Your task to perform on an android device: toggle data saver in the chrome app Image 0: 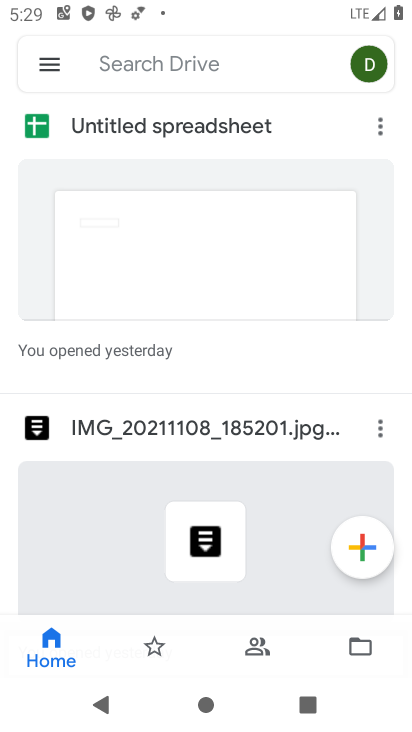
Step 0: press back button
Your task to perform on an android device: toggle data saver in the chrome app Image 1: 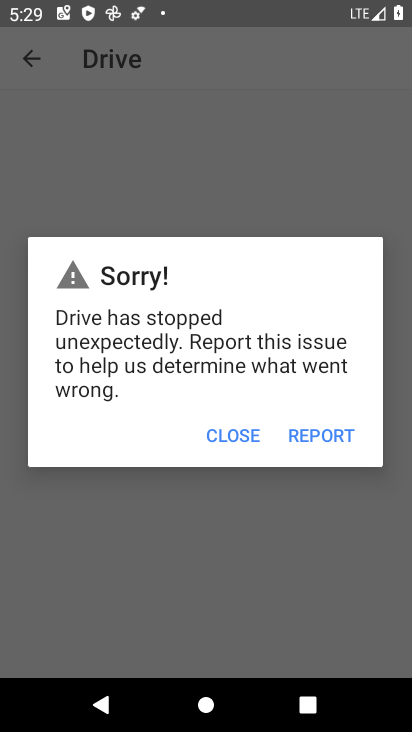
Step 1: press home button
Your task to perform on an android device: toggle data saver in the chrome app Image 2: 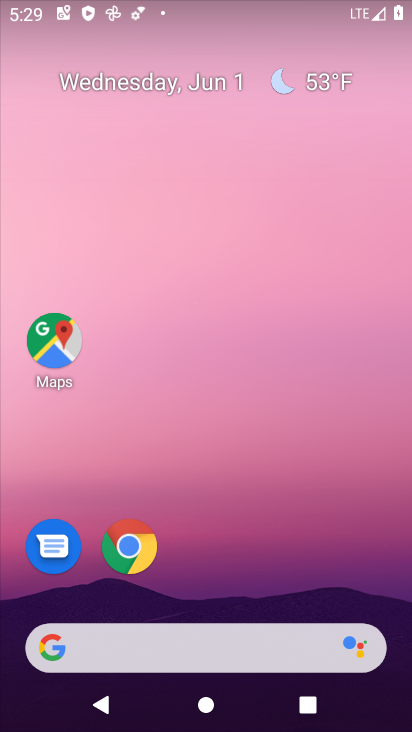
Step 2: drag from (238, 546) to (233, 1)
Your task to perform on an android device: toggle data saver in the chrome app Image 3: 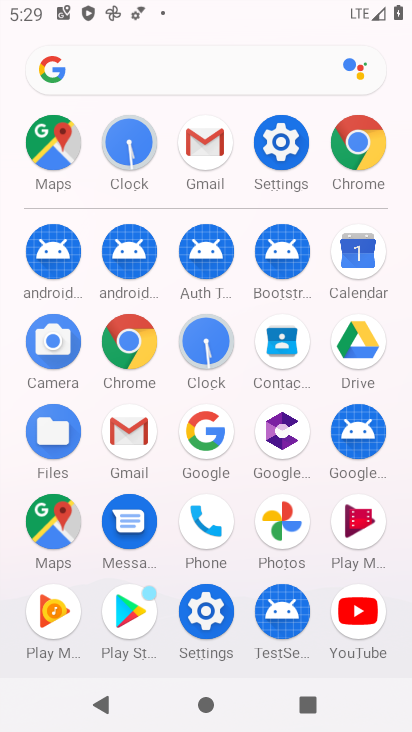
Step 3: click (123, 340)
Your task to perform on an android device: toggle data saver in the chrome app Image 4: 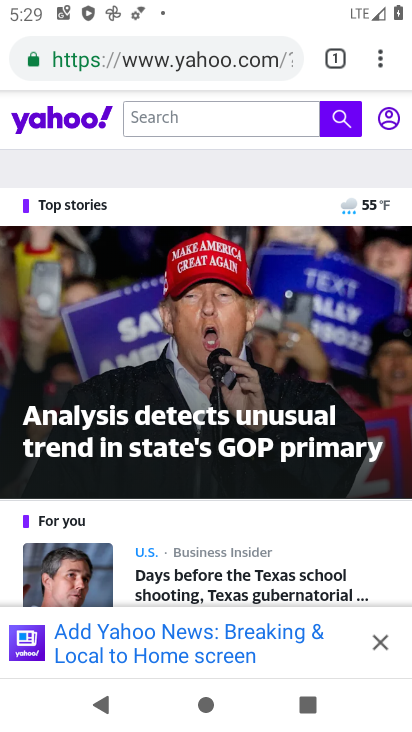
Step 4: drag from (379, 55) to (178, 565)
Your task to perform on an android device: toggle data saver in the chrome app Image 5: 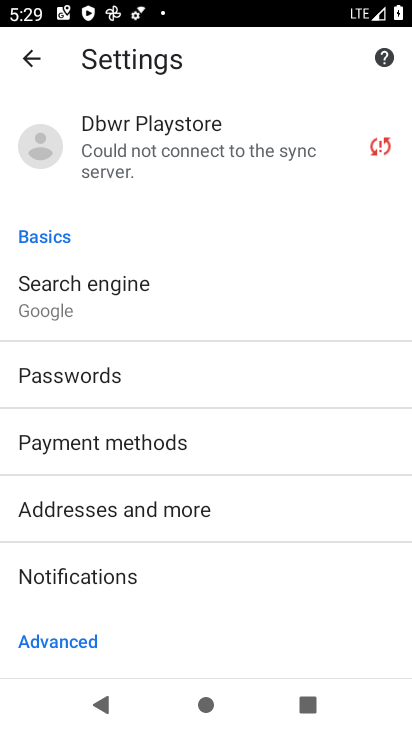
Step 5: drag from (215, 567) to (208, 152)
Your task to perform on an android device: toggle data saver in the chrome app Image 6: 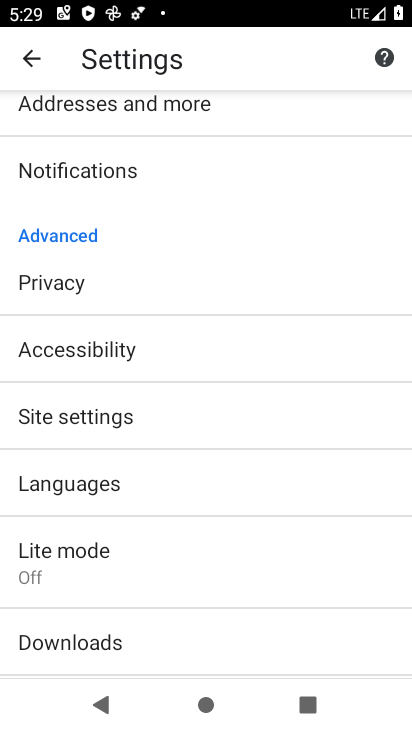
Step 6: click (76, 563)
Your task to perform on an android device: toggle data saver in the chrome app Image 7: 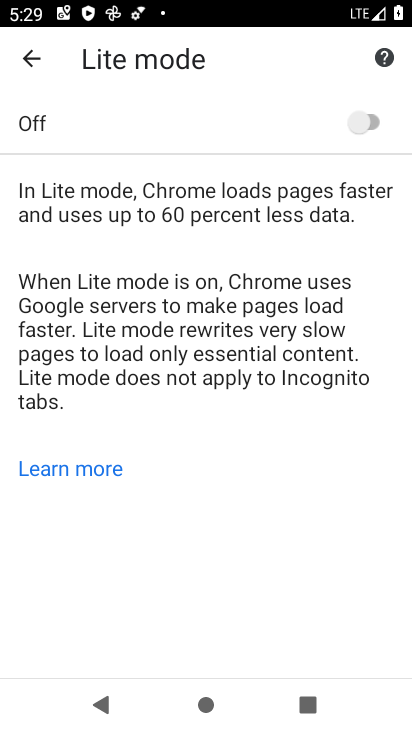
Step 7: click (372, 109)
Your task to perform on an android device: toggle data saver in the chrome app Image 8: 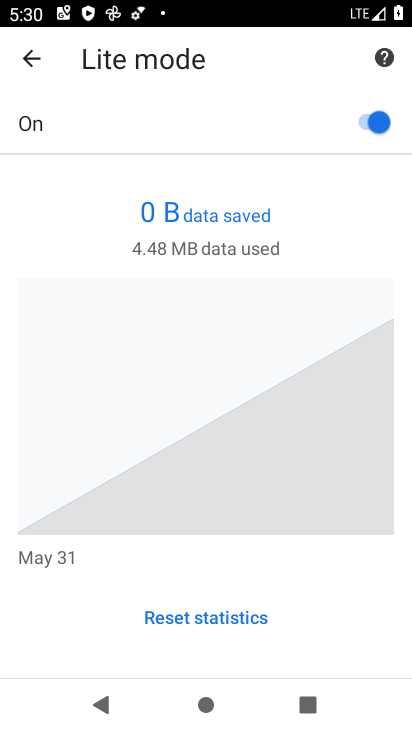
Step 8: task complete